Your task to perform on an android device: check google app version Image 0: 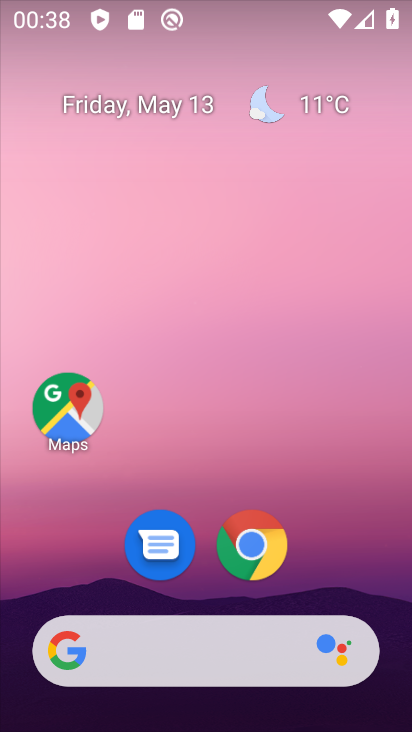
Step 0: drag from (319, 550) to (313, 178)
Your task to perform on an android device: check google app version Image 1: 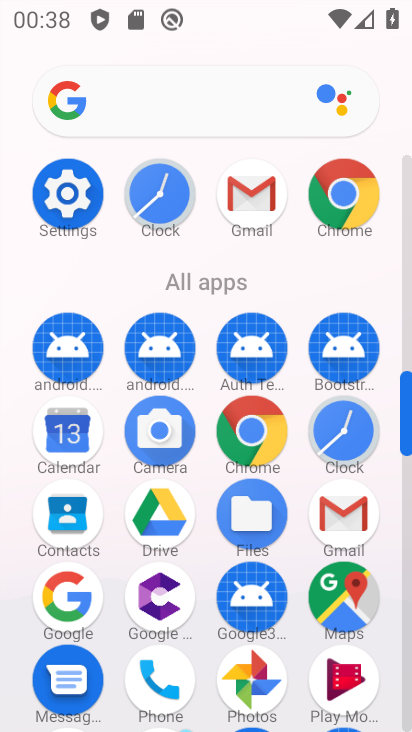
Step 1: click (86, 597)
Your task to perform on an android device: check google app version Image 2: 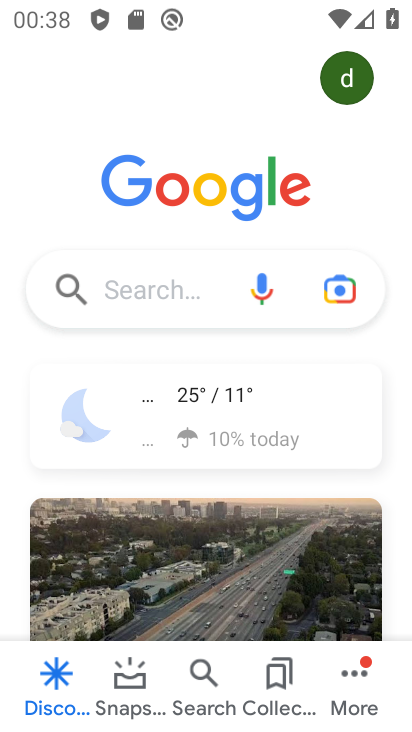
Step 2: click (348, 659)
Your task to perform on an android device: check google app version Image 3: 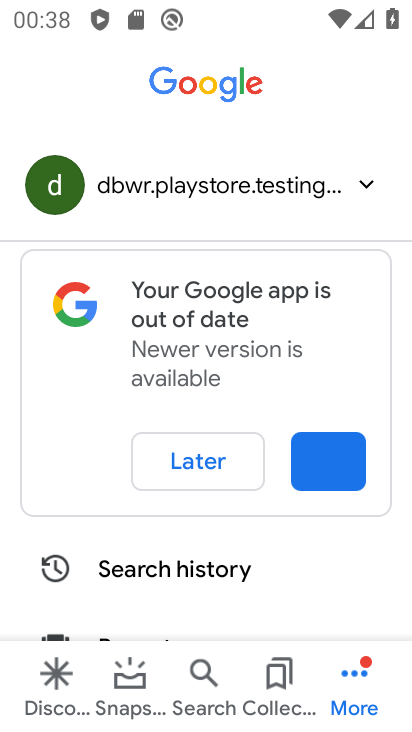
Step 3: drag from (212, 580) to (250, 224)
Your task to perform on an android device: check google app version Image 4: 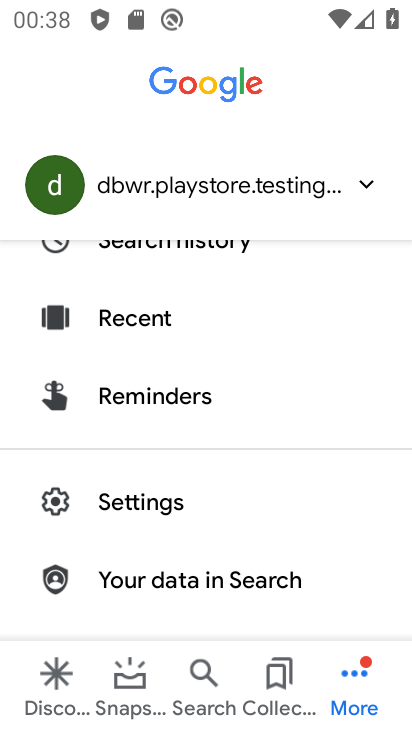
Step 4: click (164, 516)
Your task to perform on an android device: check google app version Image 5: 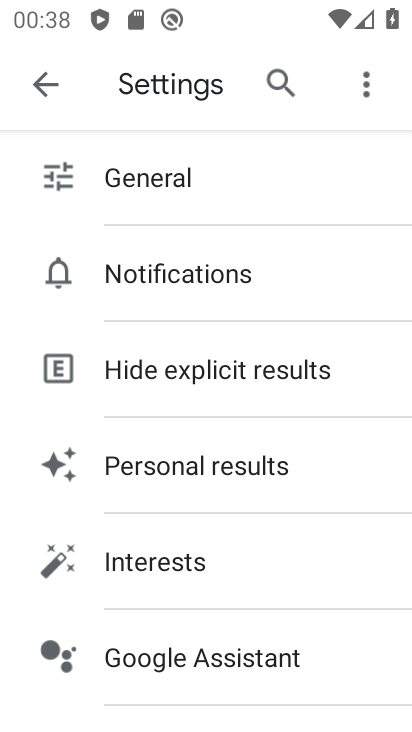
Step 5: drag from (221, 628) to (263, 163)
Your task to perform on an android device: check google app version Image 6: 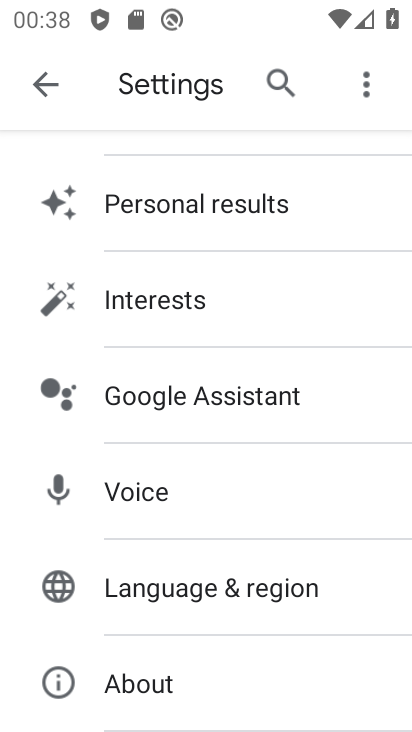
Step 6: click (161, 685)
Your task to perform on an android device: check google app version Image 7: 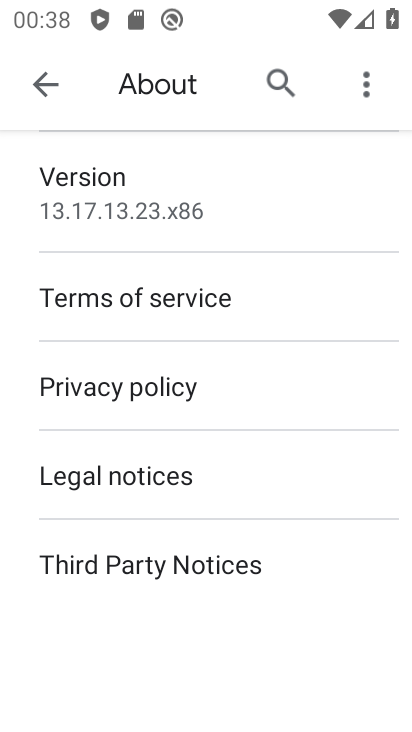
Step 7: click (199, 212)
Your task to perform on an android device: check google app version Image 8: 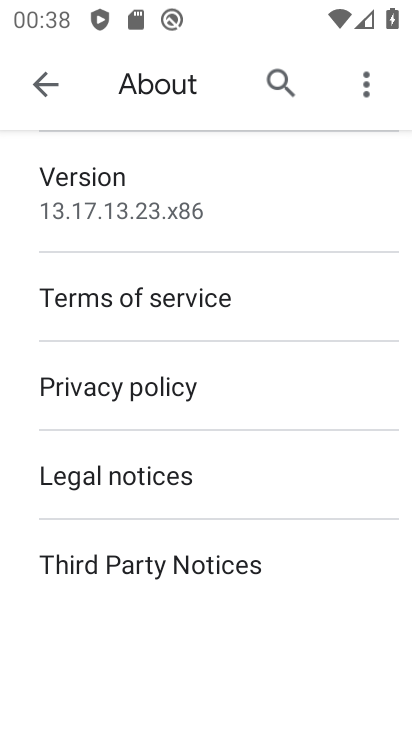
Step 8: task complete